Your task to perform on an android device: Search for vegetarian restaurants on Maps Image 0: 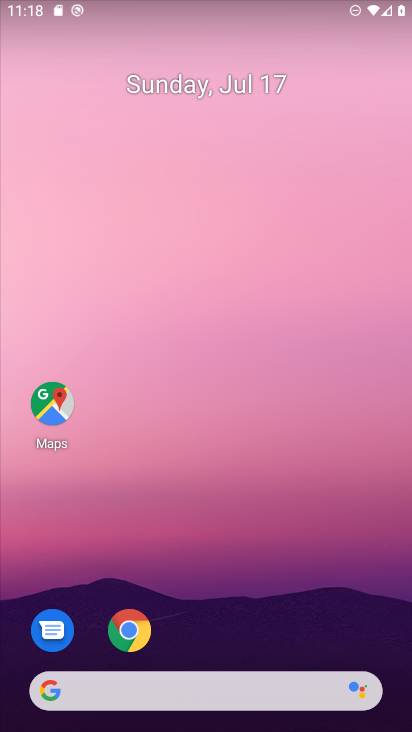
Step 0: click (54, 412)
Your task to perform on an android device: Search for vegetarian restaurants on Maps Image 1: 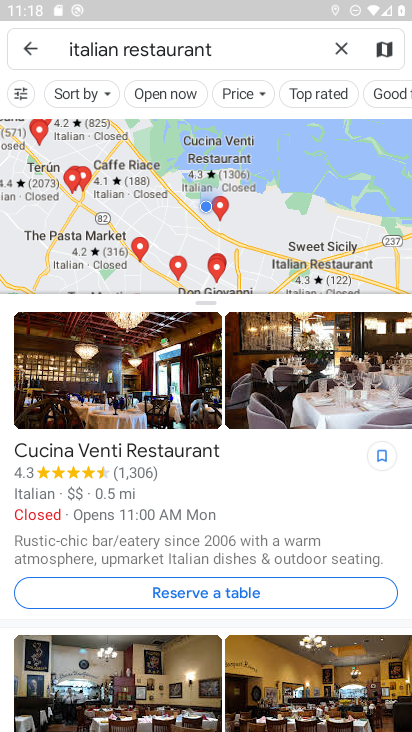
Step 1: click (337, 45)
Your task to perform on an android device: Search for vegetarian restaurants on Maps Image 2: 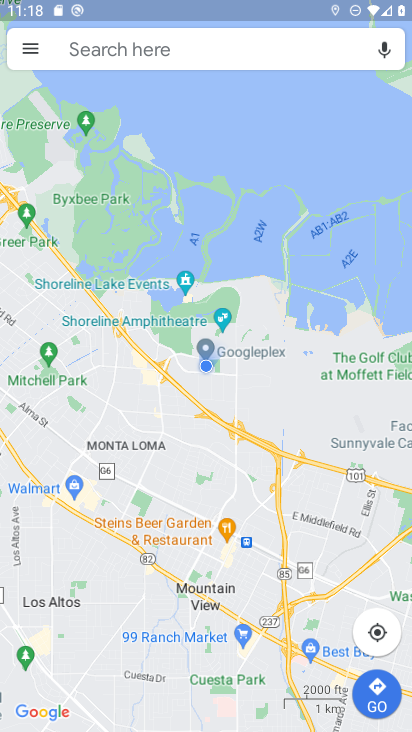
Step 2: click (121, 45)
Your task to perform on an android device: Search for vegetarian restaurants on Maps Image 3: 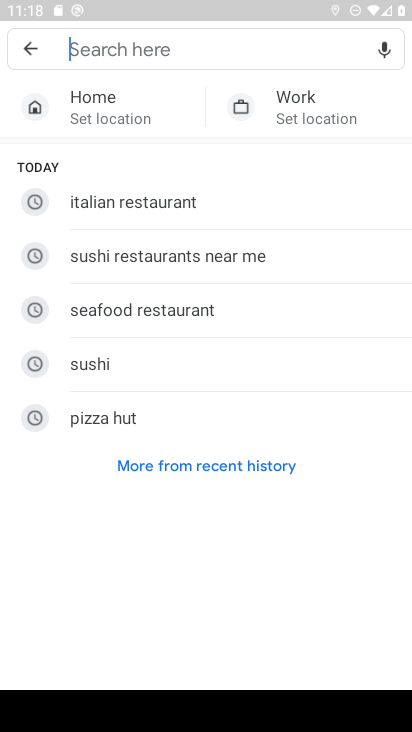
Step 3: type "vegetarian retaurants"
Your task to perform on an android device: Search for vegetarian restaurants on Maps Image 4: 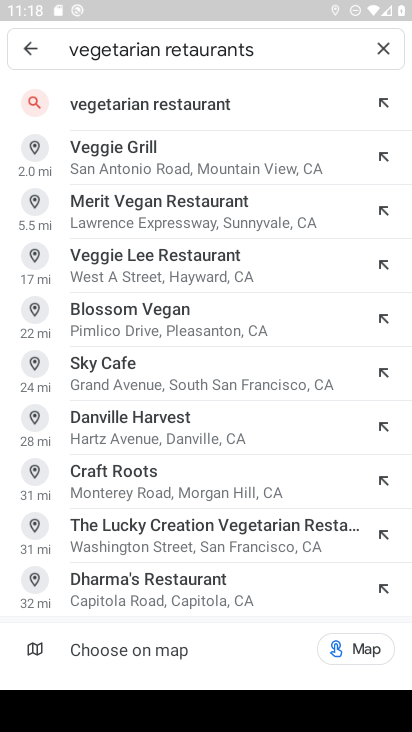
Step 4: click (191, 99)
Your task to perform on an android device: Search for vegetarian restaurants on Maps Image 5: 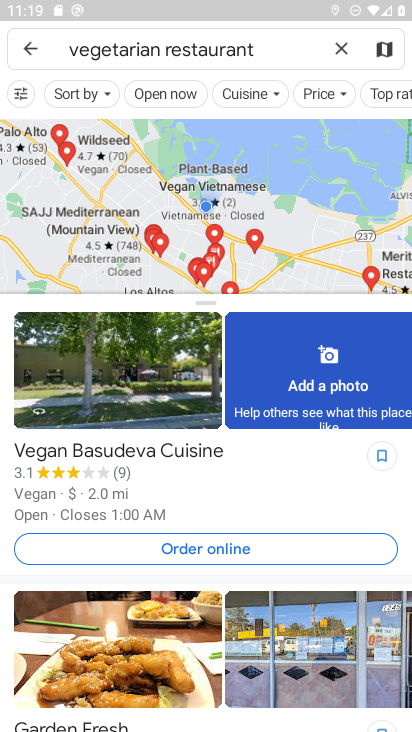
Step 5: task complete